Your task to perform on an android device: create a new album in the google photos Image 0: 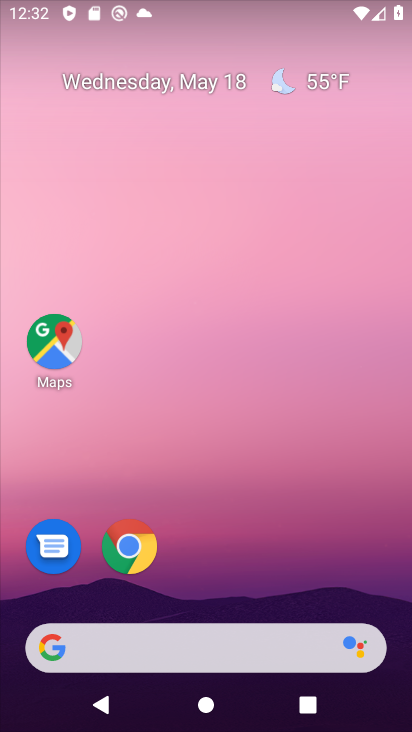
Step 0: drag from (350, 574) to (378, 124)
Your task to perform on an android device: create a new album in the google photos Image 1: 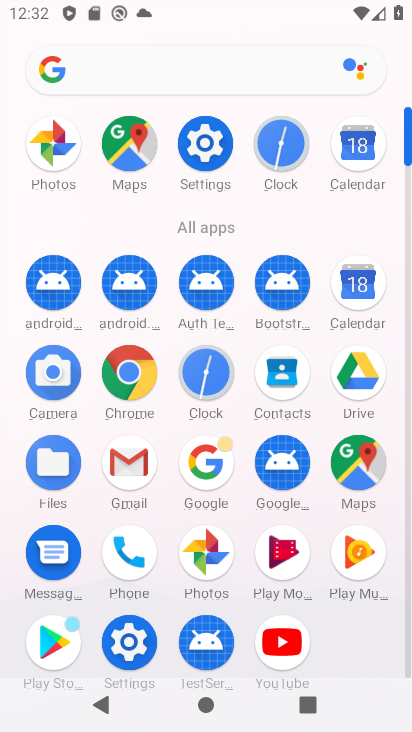
Step 1: click (200, 555)
Your task to perform on an android device: create a new album in the google photos Image 2: 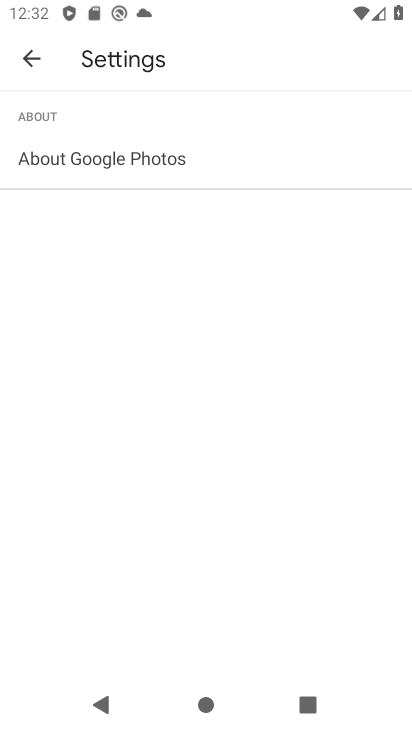
Step 2: click (13, 45)
Your task to perform on an android device: create a new album in the google photos Image 3: 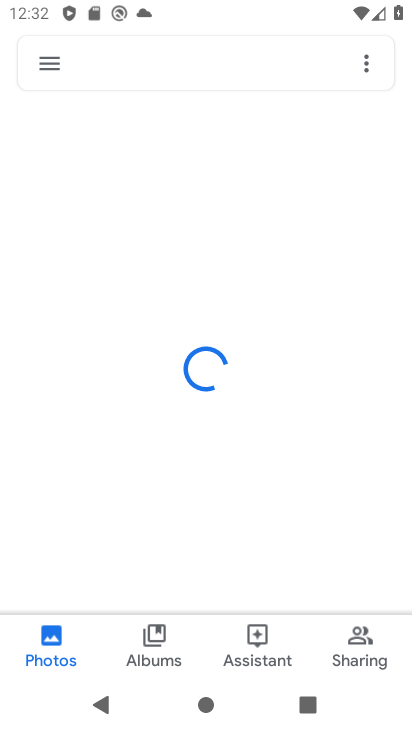
Step 3: click (166, 632)
Your task to perform on an android device: create a new album in the google photos Image 4: 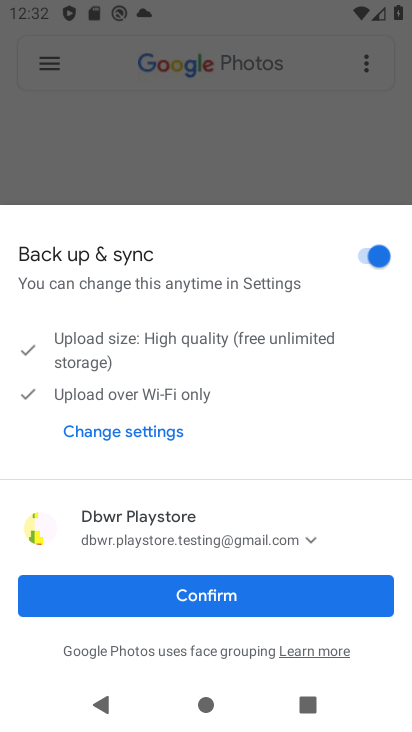
Step 4: click (166, 596)
Your task to perform on an android device: create a new album in the google photos Image 5: 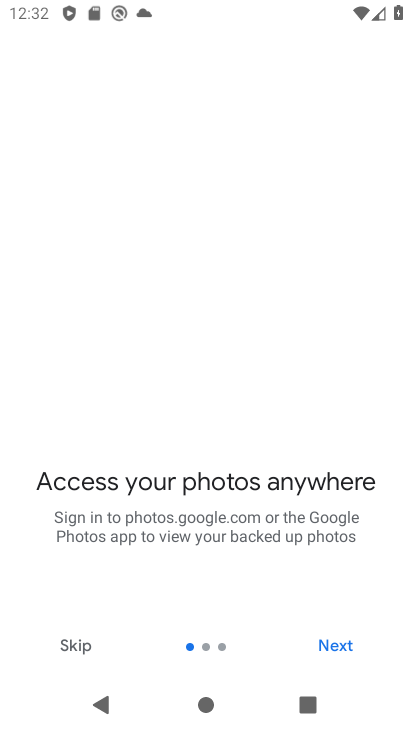
Step 5: click (78, 645)
Your task to perform on an android device: create a new album in the google photos Image 6: 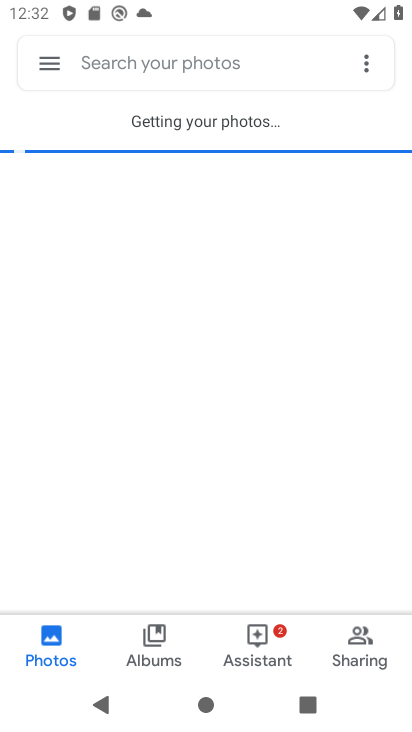
Step 6: click (160, 633)
Your task to perform on an android device: create a new album in the google photos Image 7: 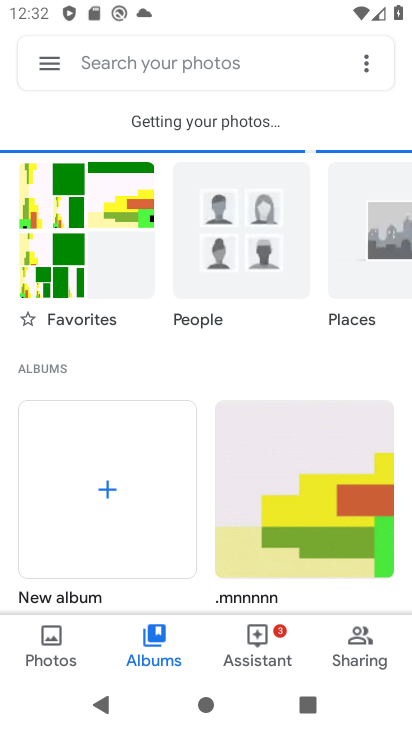
Step 7: click (128, 517)
Your task to perform on an android device: create a new album in the google photos Image 8: 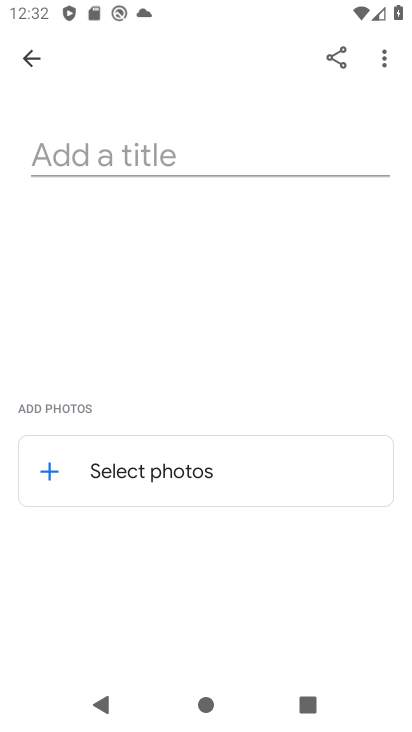
Step 8: click (193, 160)
Your task to perform on an android device: create a new album in the google photos Image 9: 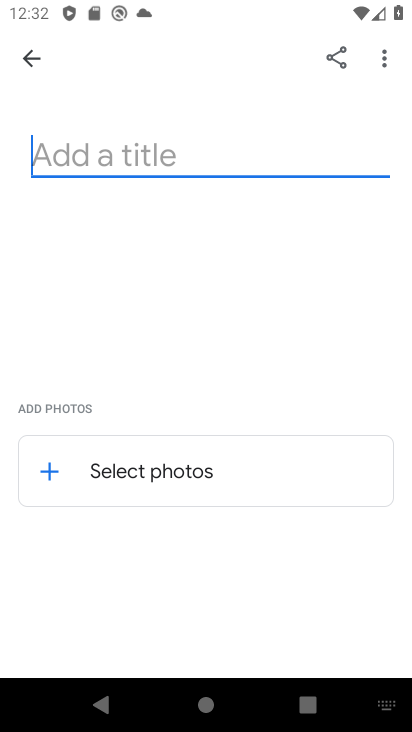
Step 9: type "832832"
Your task to perform on an android device: create a new album in the google photos Image 10: 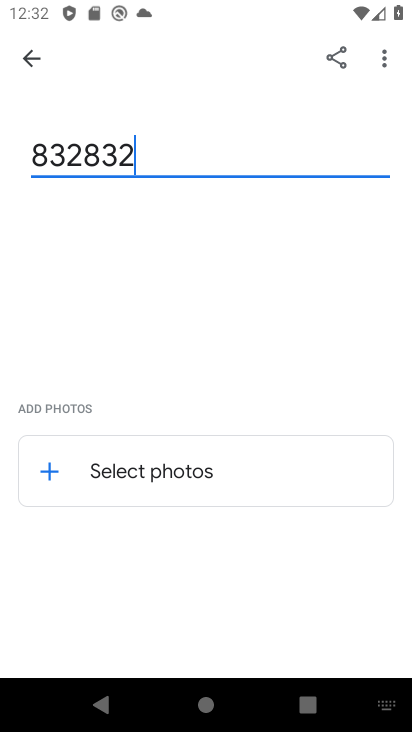
Step 10: click (56, 472)
Your task to perform on an android device: create a new album in the google photos Image 11: 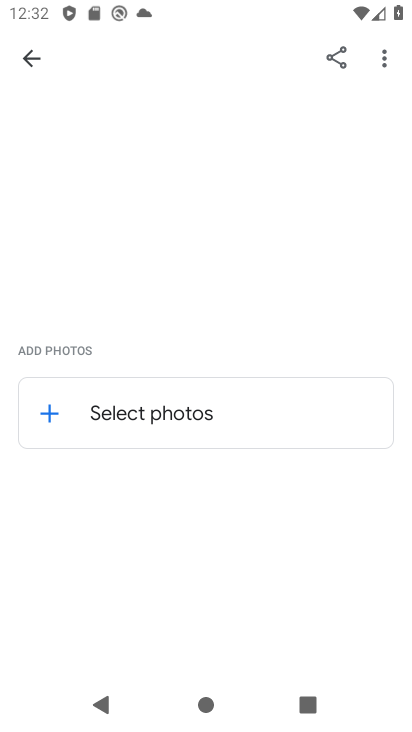
Step 11: click (50, 410)
Your task to perform on an android device: create a new album in the google photos Image 12: 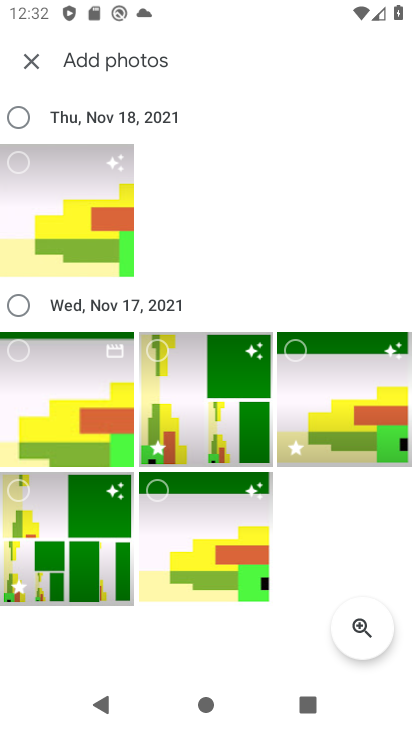
Step 12: click (22, 168)
Your task to perform on an android device: create a new album in the google photos Image 13: 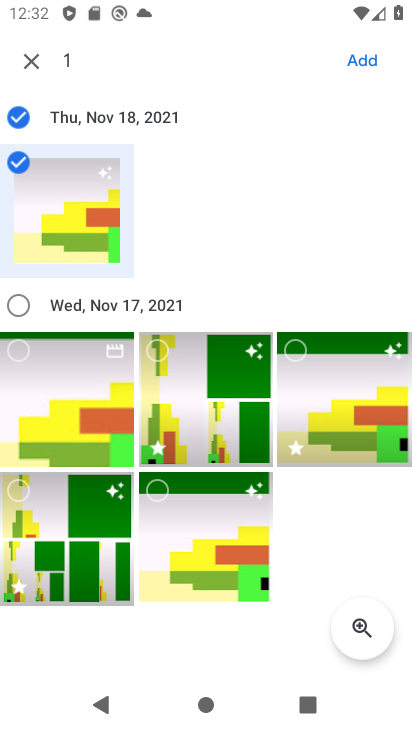
Step 13: click (370, 59)
Your task to perform on an android device: create a new album in the google photos Image 14: 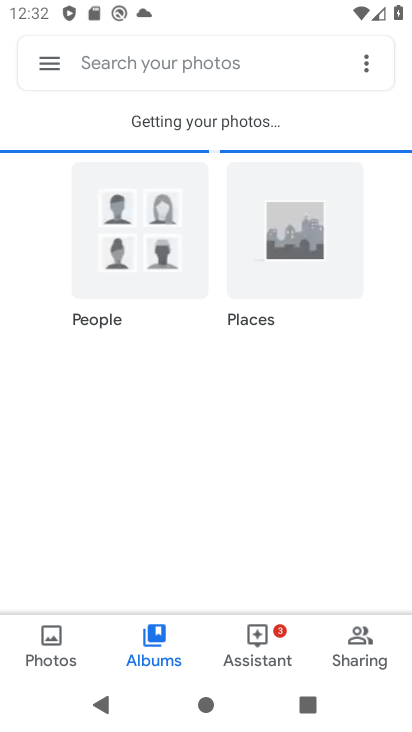
Step 14: task complete